Your task to perform on an android device: Open the map Image 0: 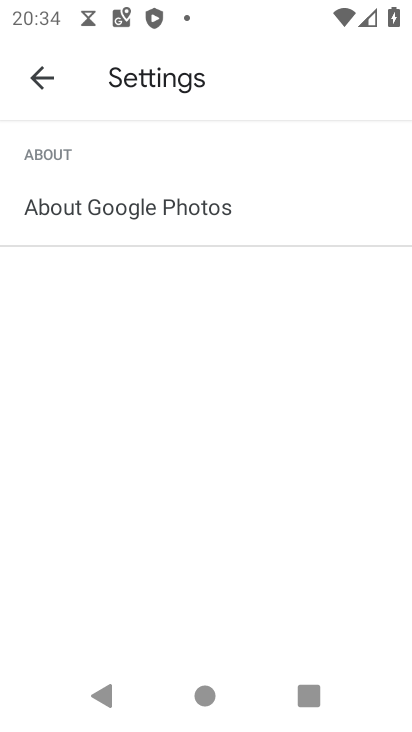
Step 0: press home button
Your task to perform on an android device: Open the map Image 1: 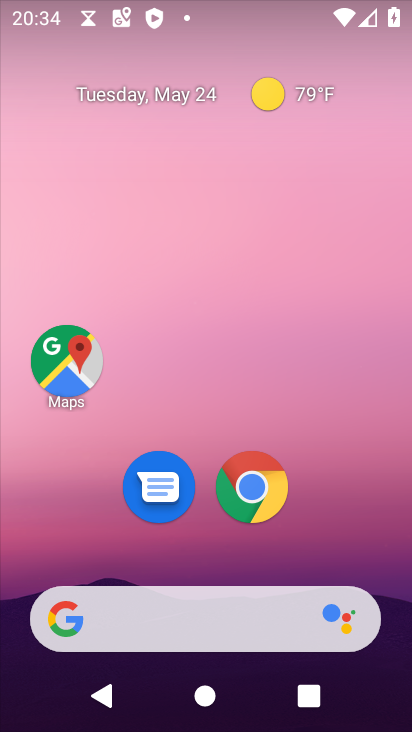
Step 1: click (49, 361)
Your task to perform on an android device: Open the map Image 2: 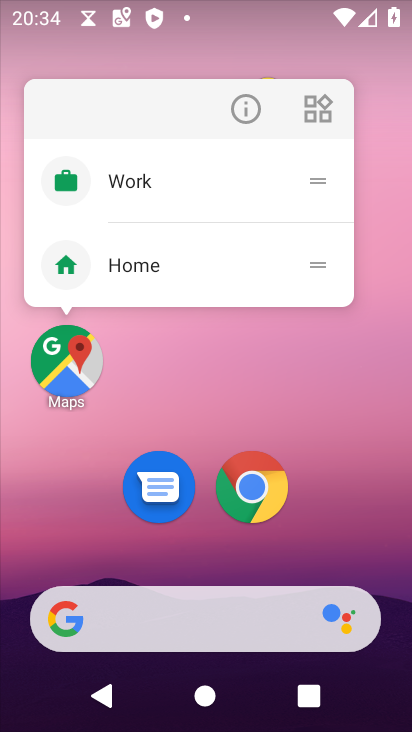
Step 2: click (56, 355)
Your task to perform on an android device: Open the map Image 3: 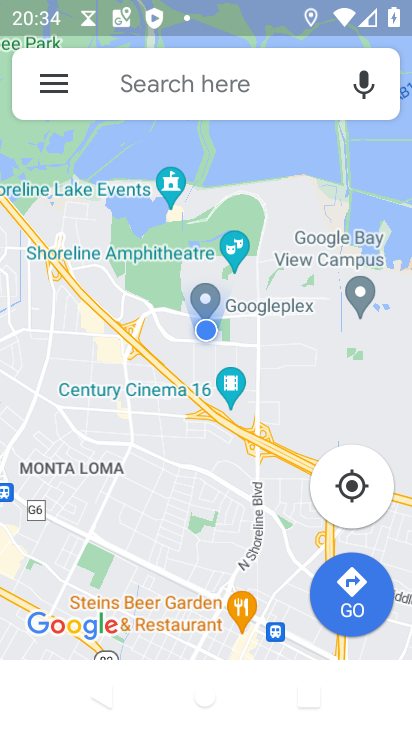
Step 3: task complete